Your task to perform on an android device: turn notification dots off Image 0: 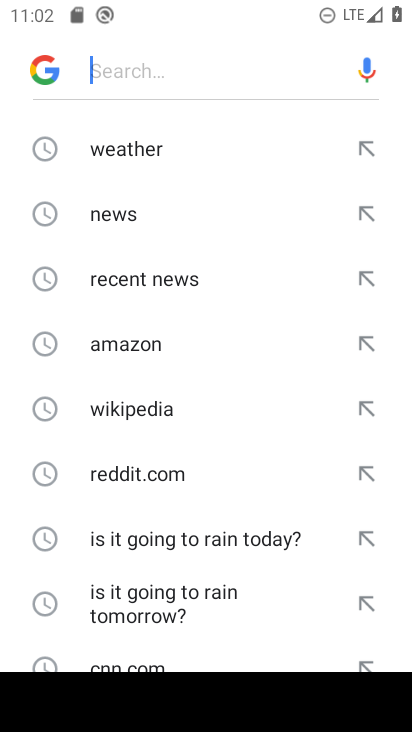
Step 0: press home button
Your task to perform on an android device: turn notification dots off Image 1: 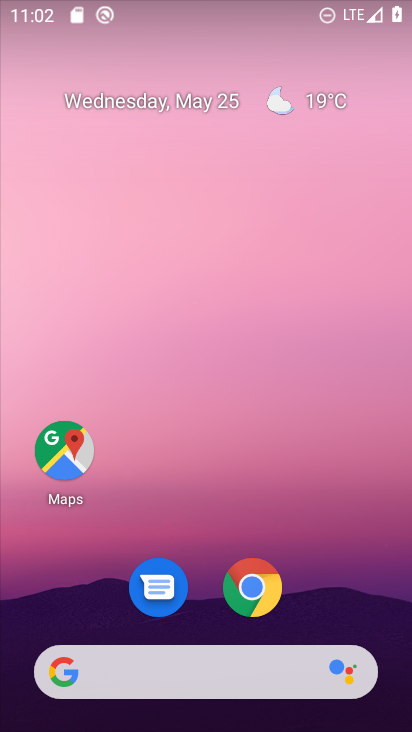
Step 1: drag from (372, 608) to (343, 33)
Your task to perform on an android device: turn notification dots off Image 2: 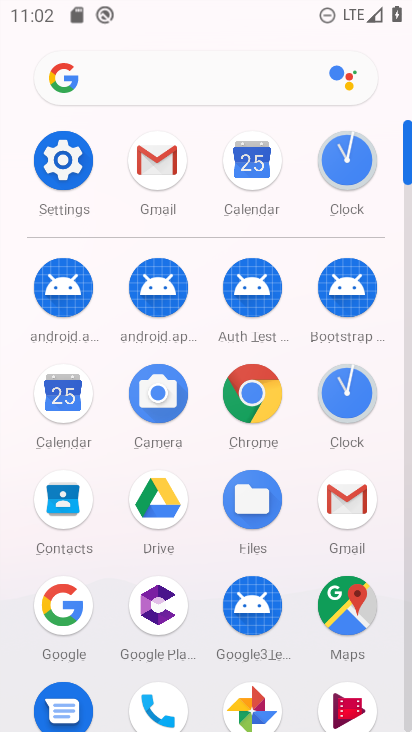
Step 2: click (407, 702)
Your task to perform on an android device: turn notification dots off Image 3: 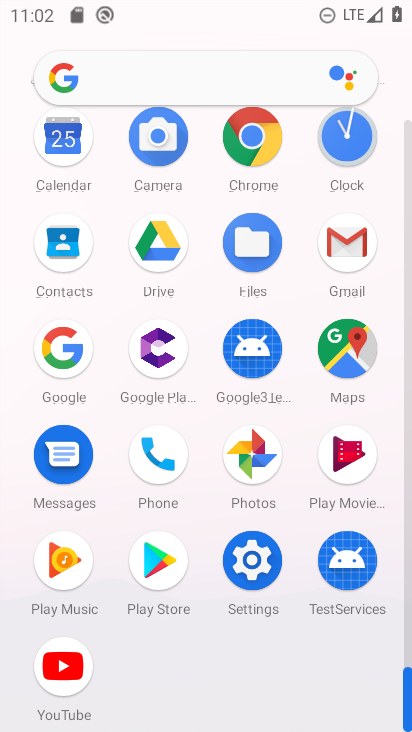
Step 3: click (251, 554)
Your task to perform on an android device: turn notification dots off Image 4: 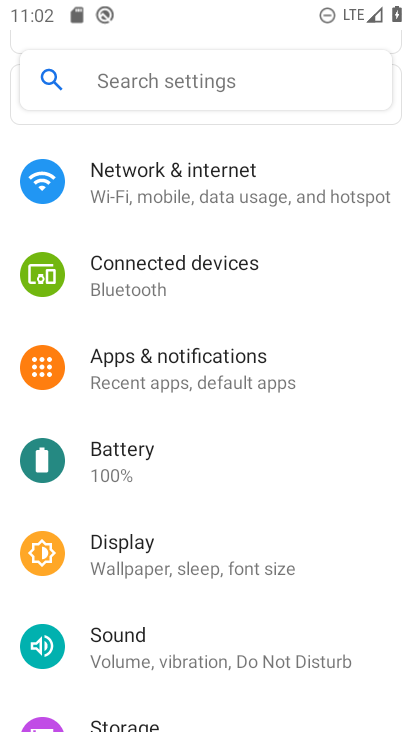
Step 4: click (154, 357)
Your task to perform on an android device: turn notification dots off Image 5: 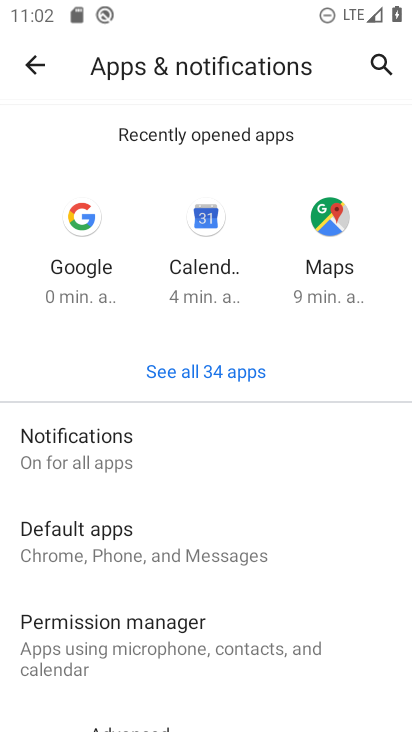
Step 5: click (101, 444)
Your task to perform on an android device: turn notification dots off Image 6: 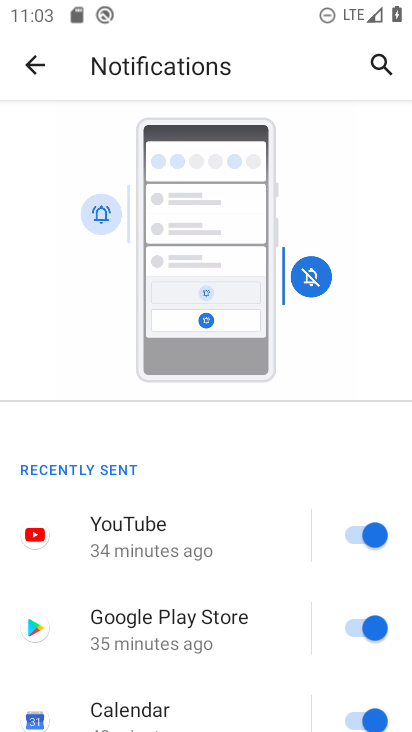
Step 6: drag from (326, 709) to (282, 203)
Your task to perform on an android device: turn notification dots off Image 7: 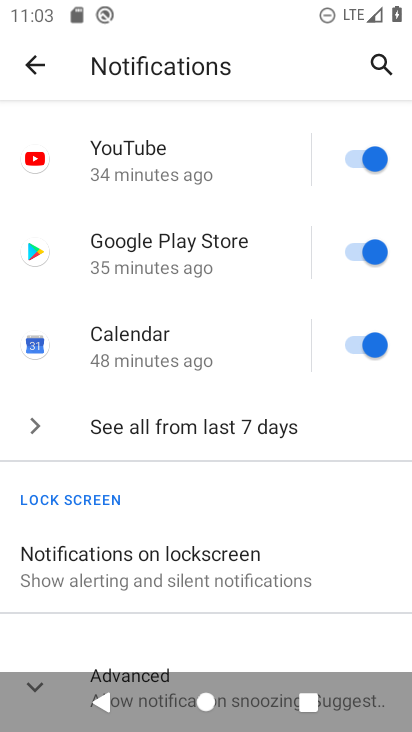
Step 7: drag from (281, 574) to (327, 152)
Your task to perform on an android device: turn notification dots off Image 8: 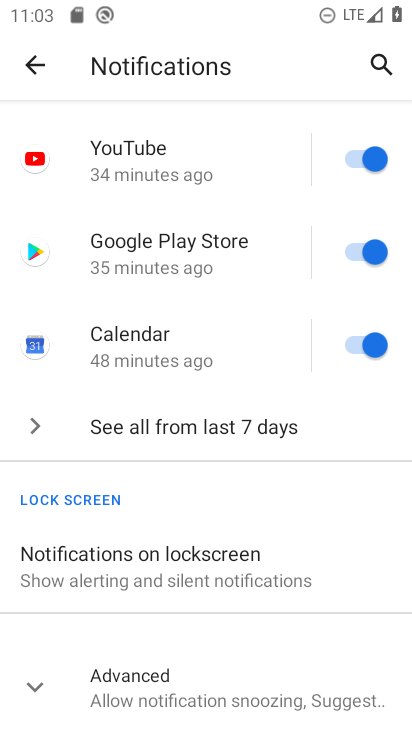
Step 8: click (29, 689)
Your task to perform on an android device: turn notification dots off Image 9: 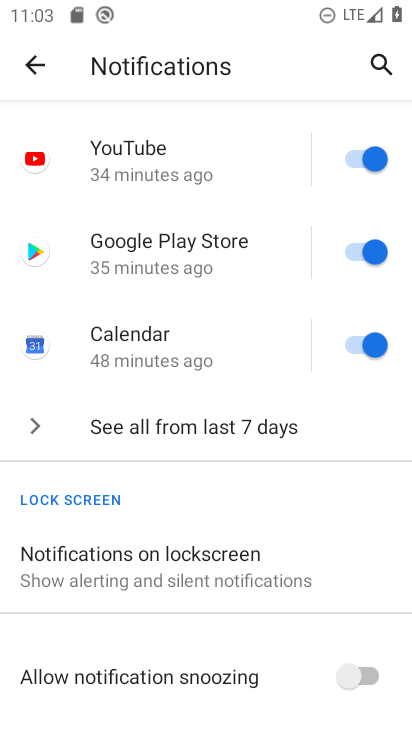
Step 9: drag from (363, 700) to (291, 162)
Your task to perform on an android device: turn notification dots off Image 10: 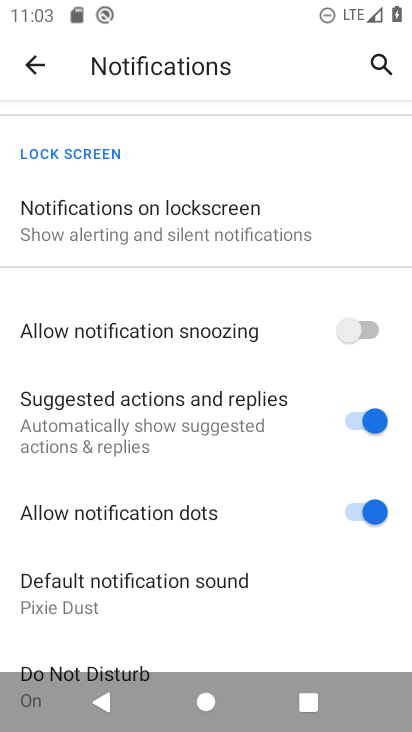
Step 10: click (347, 513)
Your task to perform on an android device: turn notification dots off Image 11: 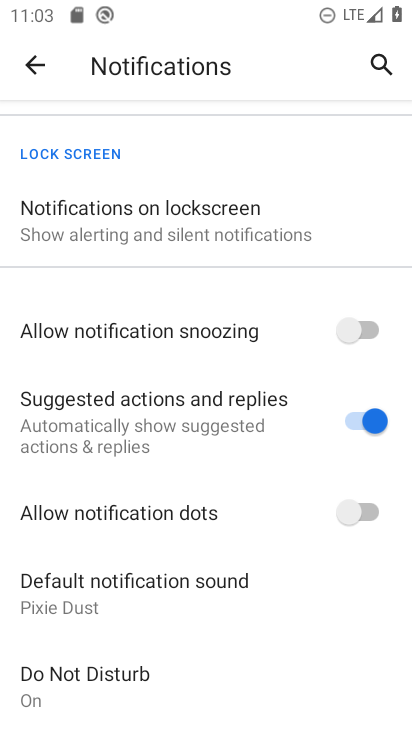
Step 11: task complete